Your task to perform on an android device: Open Google Chrome and click the shortcut for Amazon.com Image 0: 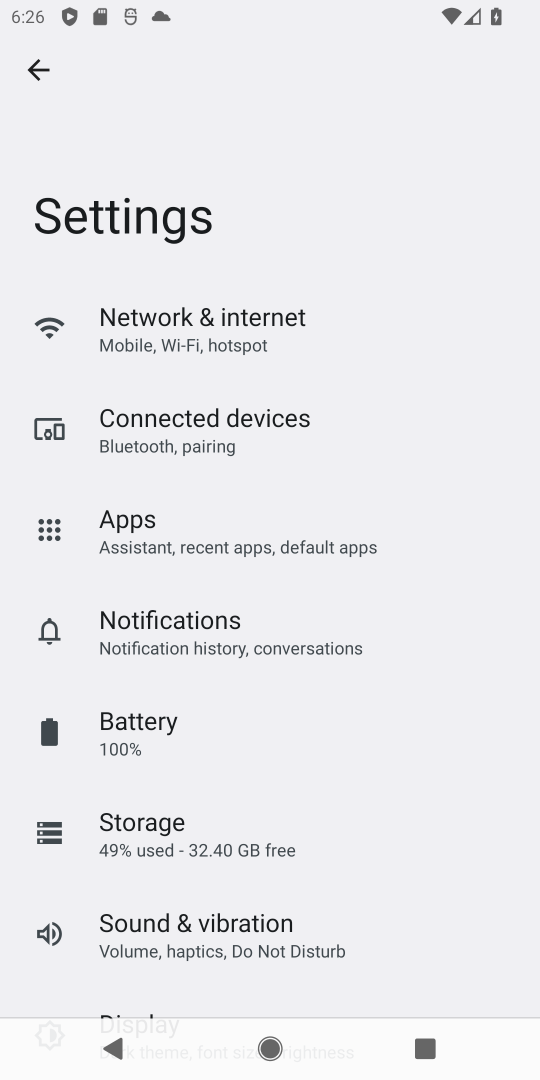
Step 0: press back button
Your task to perform on an android device: Open Google Chrome and click the shortcut for Amazon.com Image 1: 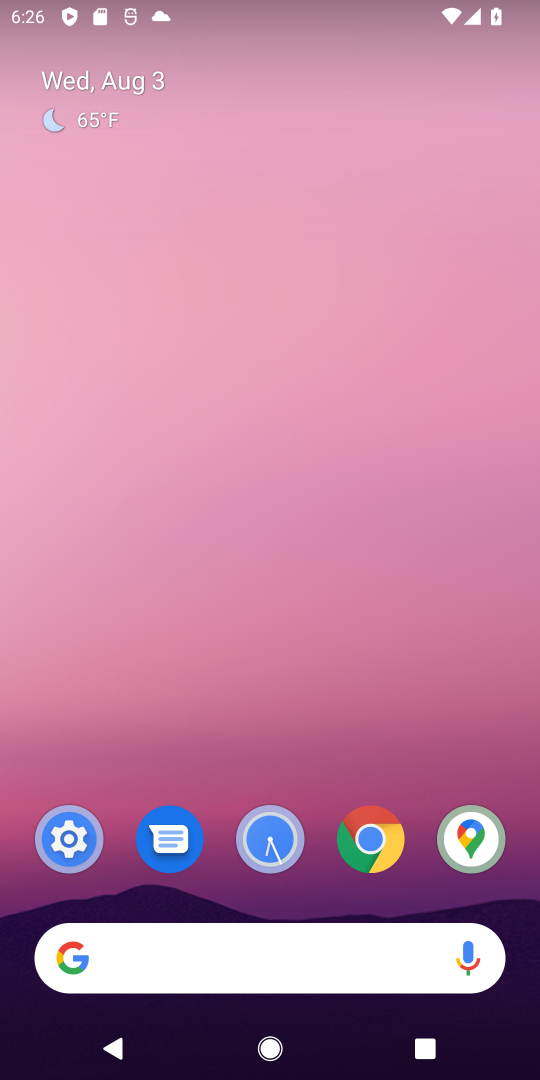
Step 1: click (366, 834)
Your task to perform on an android device: Open Google Chrome and click the shortcut for Amazon.com Image 2: 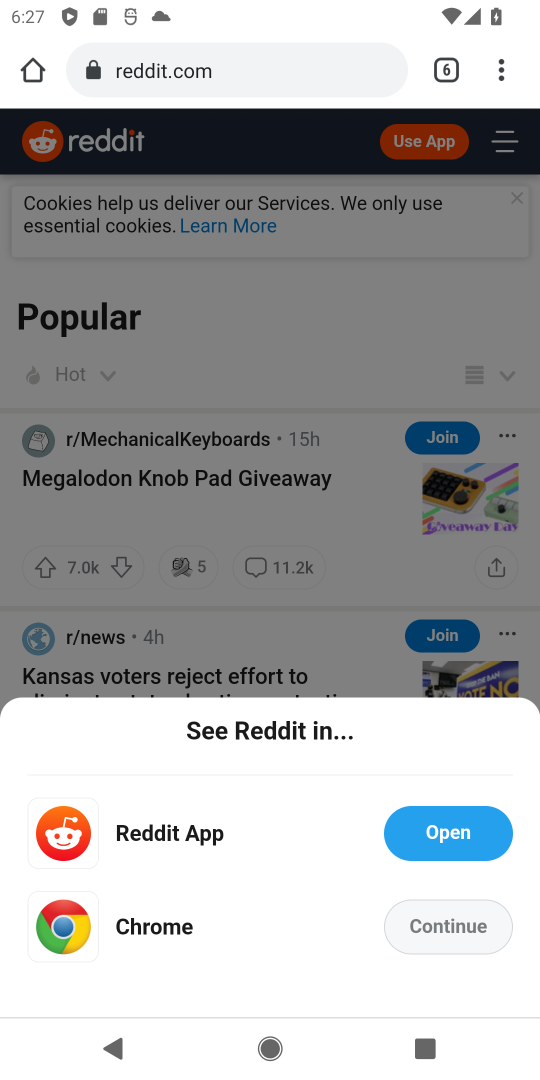
Step 2: click (444, 73)
Your task to perform on an android device: Open Google Chrome and click the shortcut for Amazon.com Image 3: 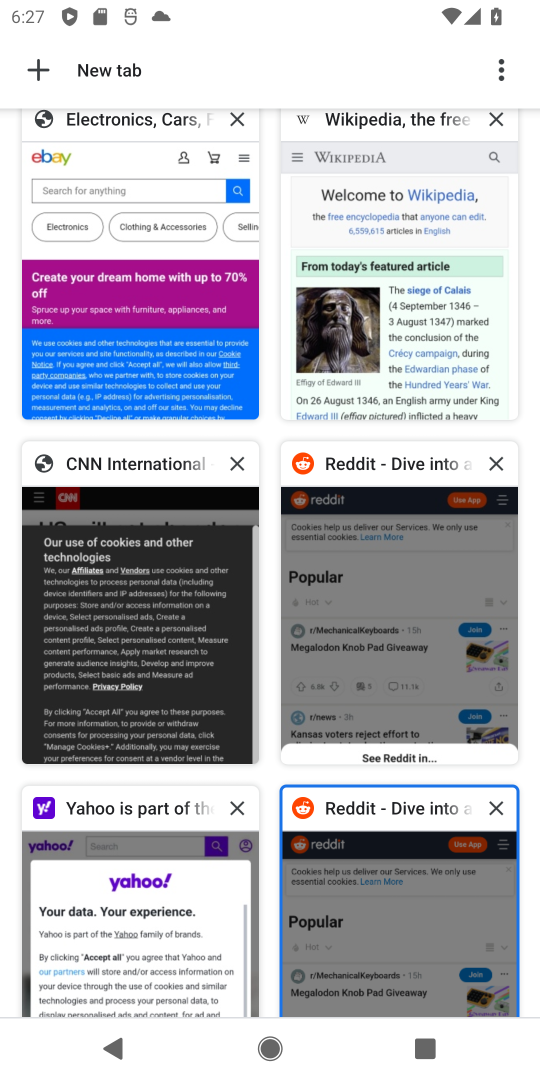
Step 3: click (43, 66)
Your task to perform on an android device: Open Google Chrome and click the shortcut for Amazon.com Image 4: 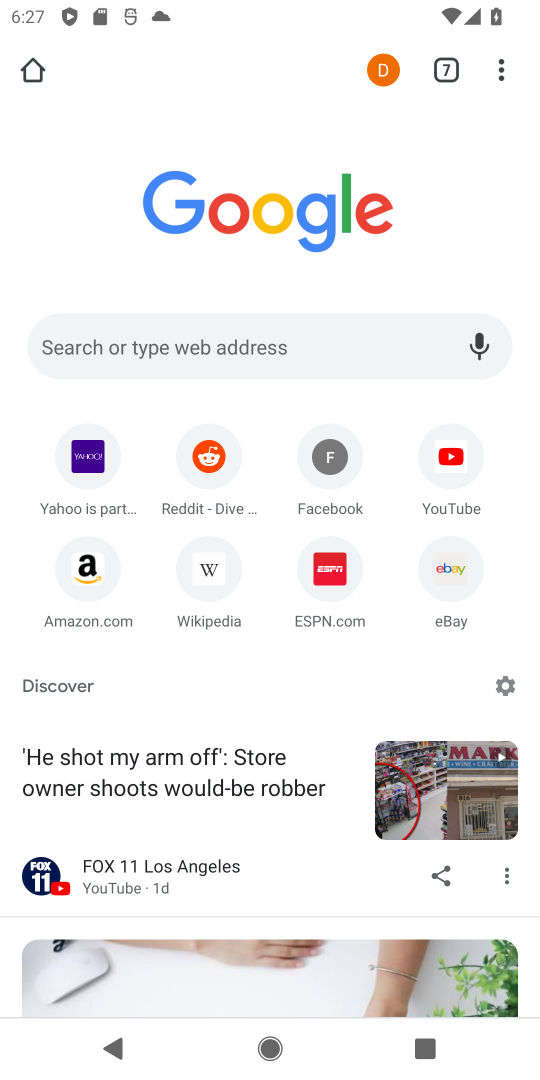
Step 4: click (94, 589)
Your task to perform on an android device: Open Google Chrome and click the shortcut for Amazon.com Image 5: 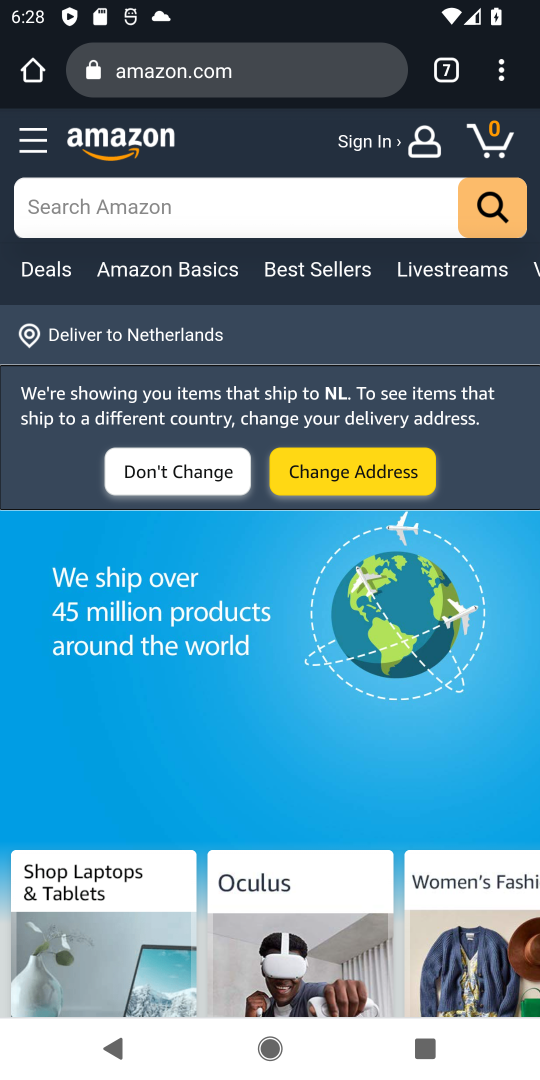
Step 5: task complete